Your task to perform on an android device: snooze an email in the gmail app Image 0: 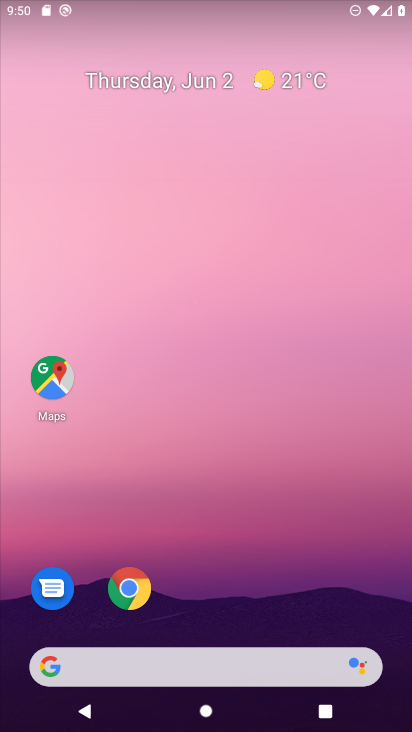
Step 0: drag from (224, 613) to (224, 187)
Your task to perform on an android device: snooze an email in the gmail app Image 1: 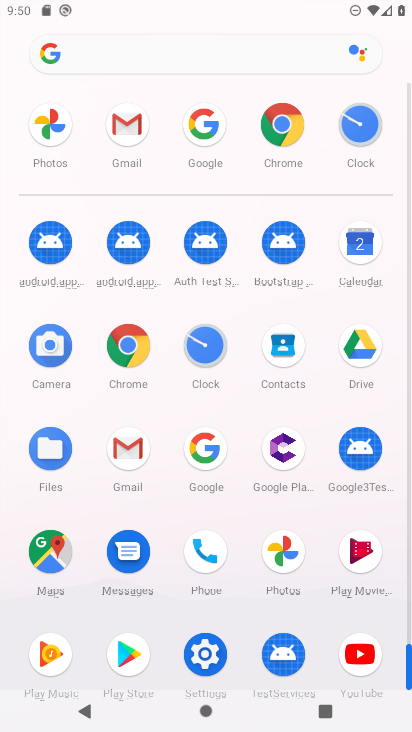
Step 1: click (136, 453)
Your task to perform on an android device: snooze an email in the gmail app Image 2: 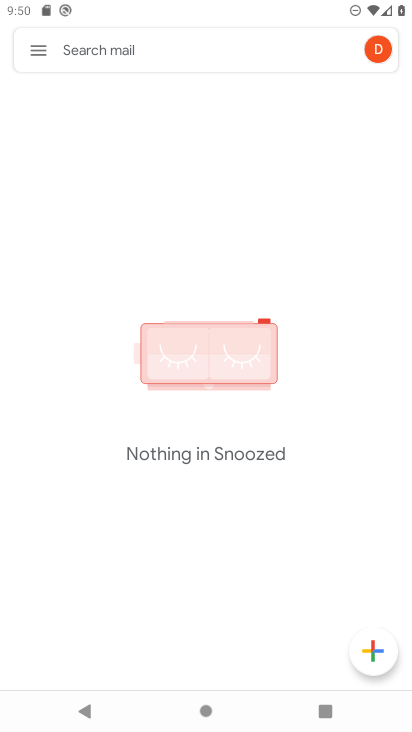
Step 2: click (44, 51)
Your task to perform on an android device: snooze an email in the gmail app Image 3: 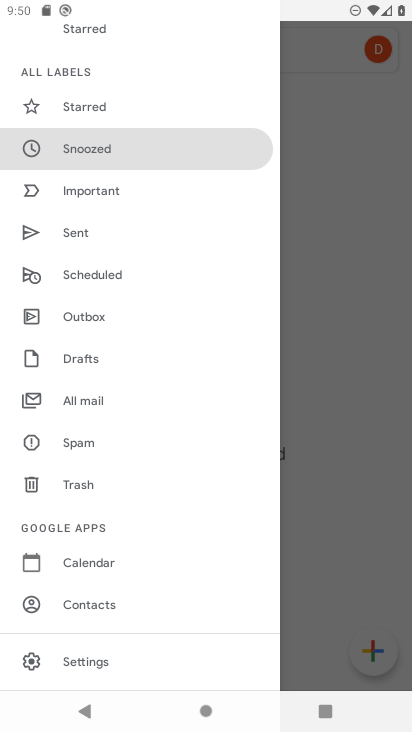
Step 3: click (95, 404)
Your task to perform on an android device: snooze an email in the gmail app Image 4: 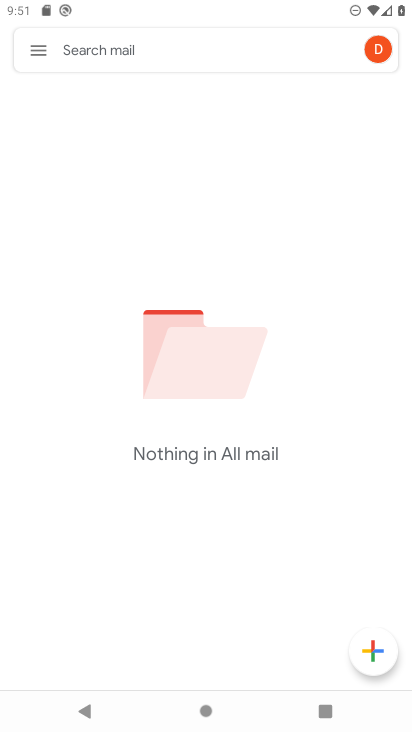
Step 4: task complete